Your task to perform on an android device: turn off improve location accuracy Image 0: 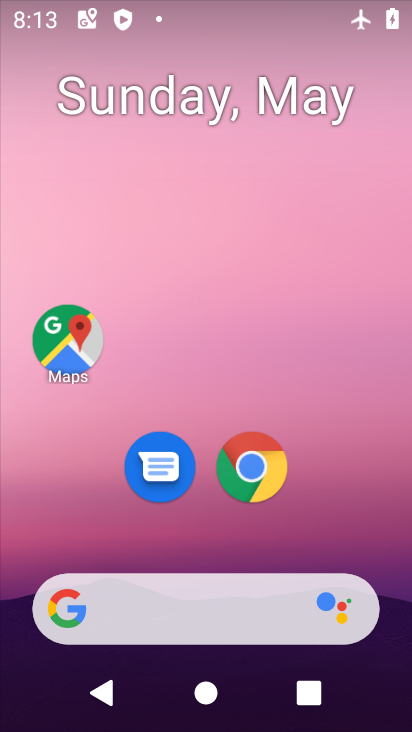
Step 0: drag from (208, 549) to (236, 9)
Your task to perform on an android device: turn off improve location accuracy Image 1: 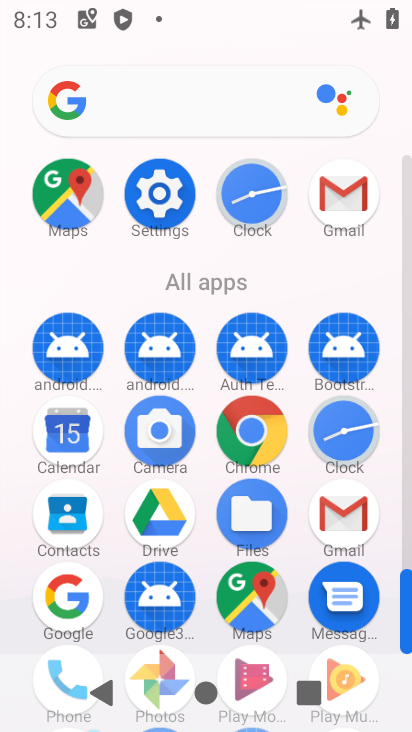
Step 1: click (148, 182)
Your task to perform on an android device: turn off improve location accuracy Image 2: 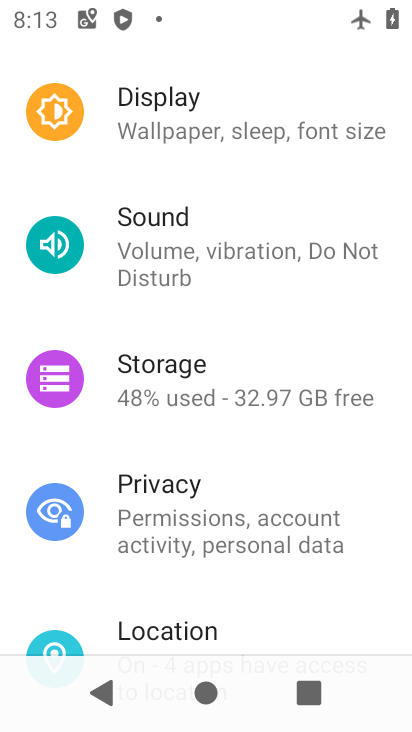
Step 2: click (143, 631)
Your task to perform on an android device: turn off improve location accuracy Image 3: 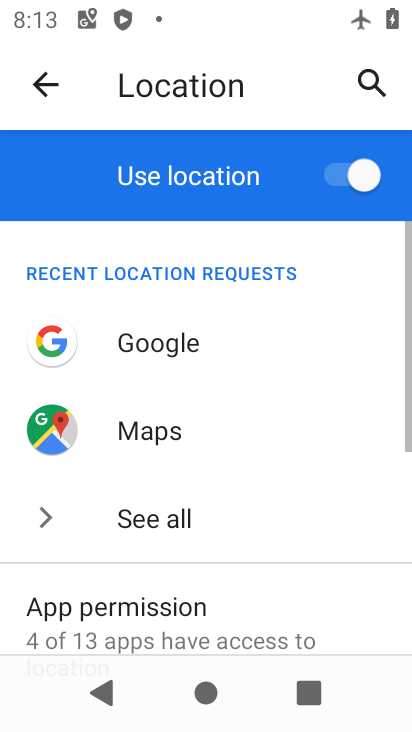
Step 3: drag from (143, 631) to (202, 185)
Your task to perform on an android device: turn off improve location accuracy Image 4: 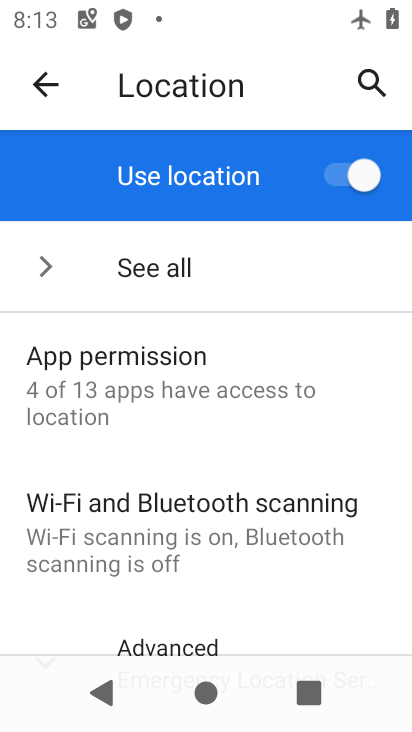
Step 4: drag from (184, 540) to (271, 131)
Your task to perform on an android device: turn off improve location accuracy Image 5: 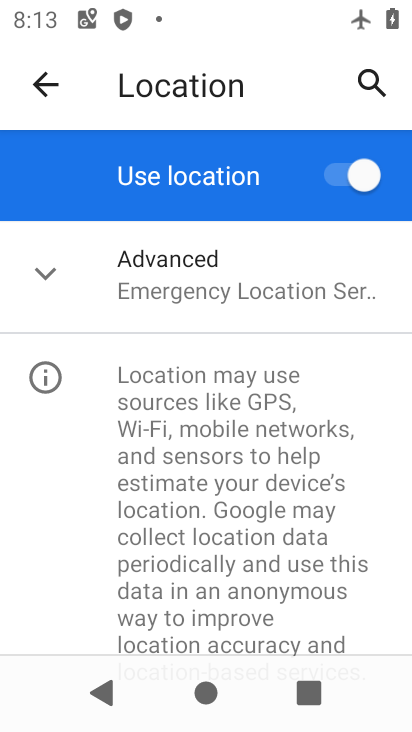
Step 5: click (209, 304)
Your task to perform on an android device: turn off improve location accuracy Image 6: 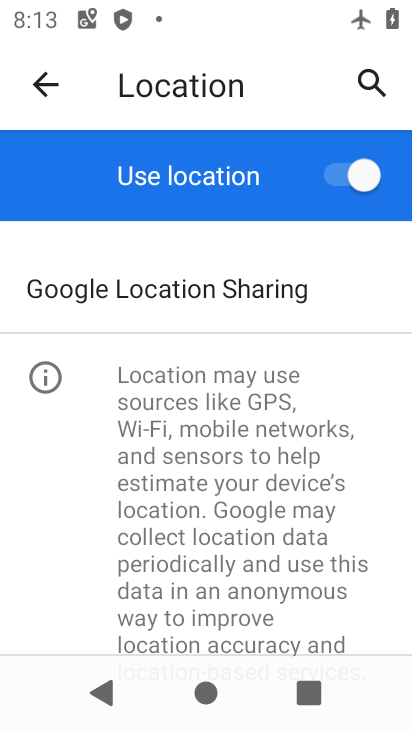
Step 6: drag from (213, 282) to (178, 668)
Your task to perform on an android device: turn off improve location accuracy Image 7: 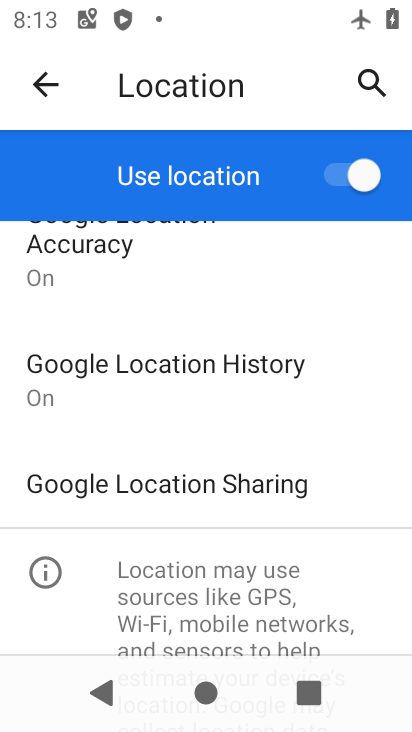
Step 7: drag from (162, 310) to (171, 596)
Your task to perform on an android device: turn off improve location accuracy Image 8: 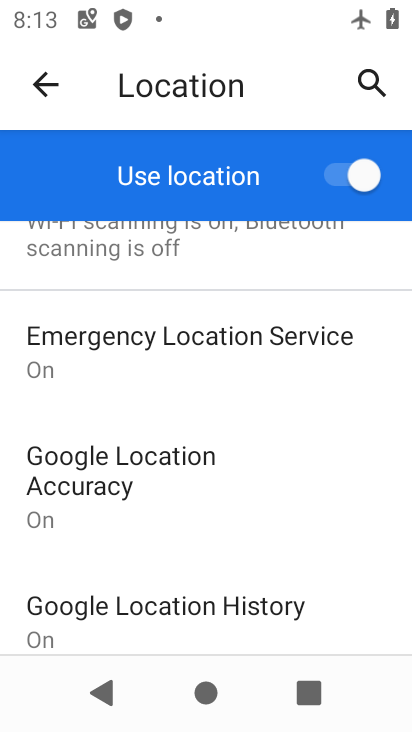
Step 8: drag from (196, 304) to (215, 453)
Your task to perform on an android device: turn off improve location accuracy Image 9: 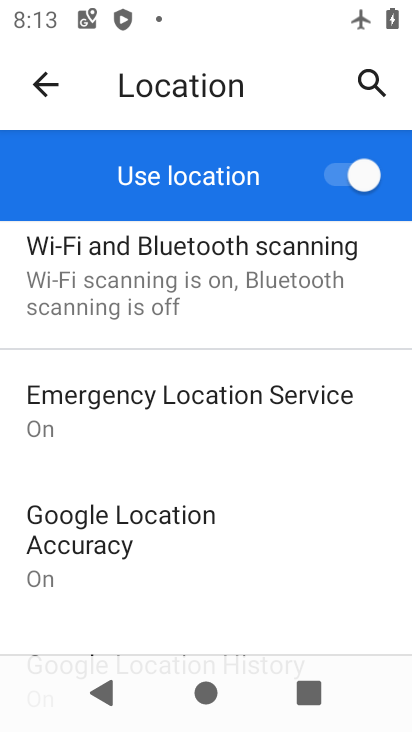
Step 9: click (236, 494)
Your task to perform on an android device: turn off improve location accuracy Image 10: 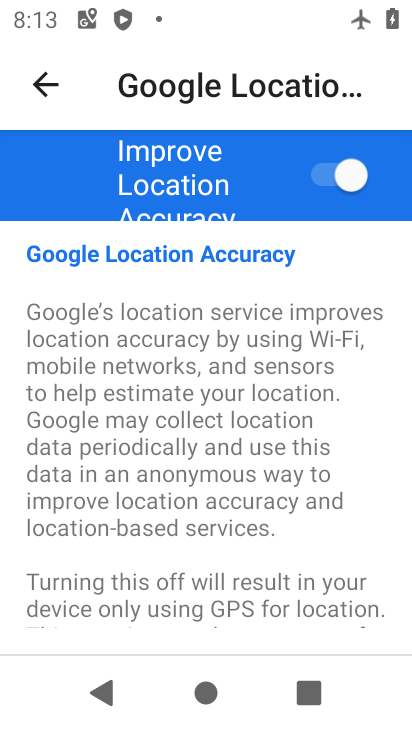
Step 10: click (344, 188)
Your task to perform on an android device: turn off improve location accuracy Image 11: 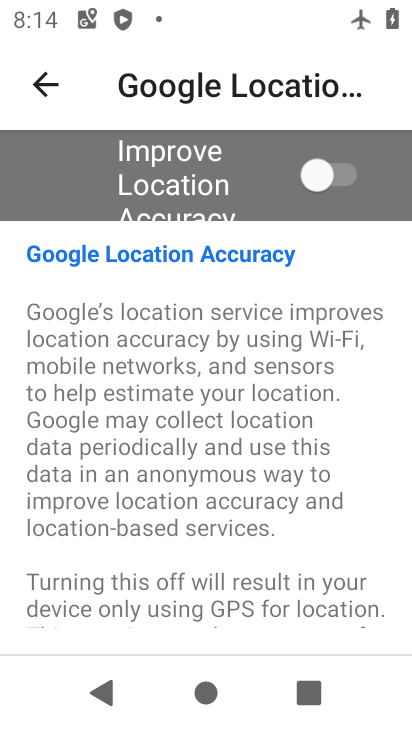
Step 11: task complete